Your task to perform on an android device: turn notification dots on Image 0: 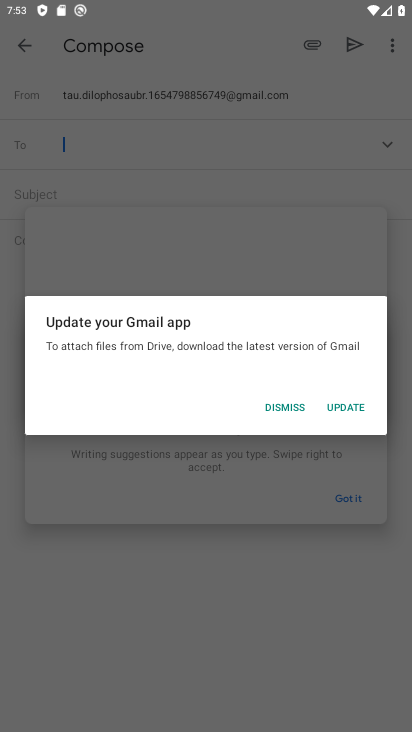
Step 0: press home button
Your task to perform on an android device: turn notification dots on Image 1: 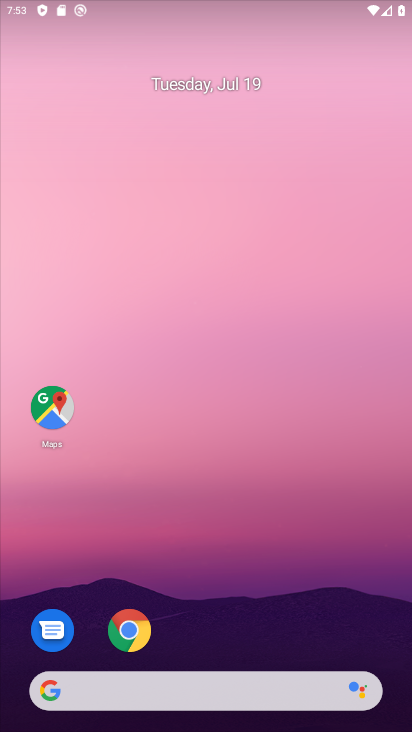
Step 1: drag from (219, 681) to (224, 154)
Your task to perform on an android device: turn notification dots on Image 2: 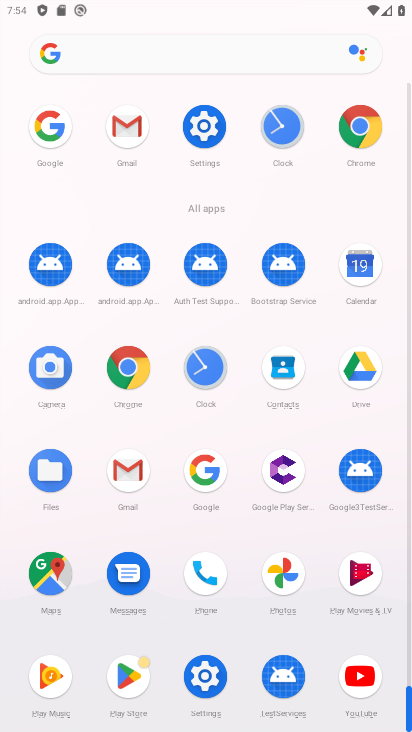
Step 2: click (209, 674)
Your task to perform on an android device: turn notification dots on Image 3: 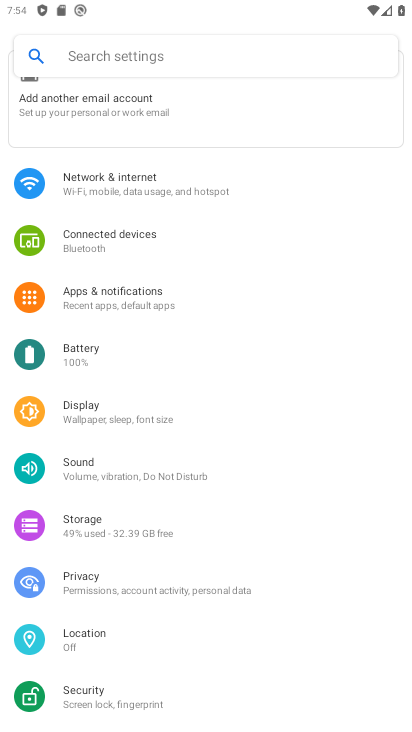
Step 3: click (160, 302)
Your task to perform on an android device: turn notification dots on Image 4: 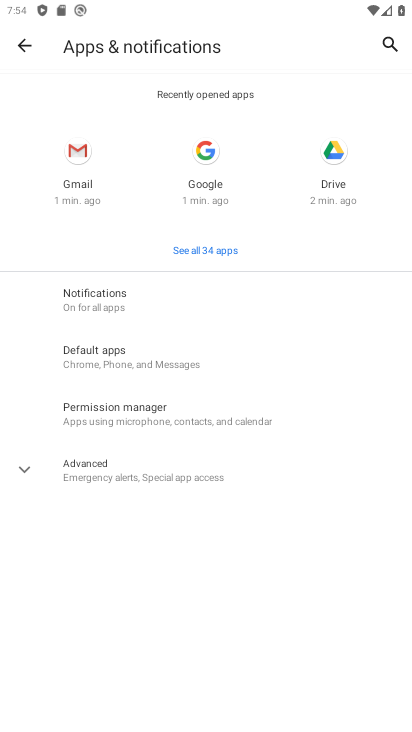
Step 4: click (155, 306)
Your task to perform on an android device: turn notification dots on Image 5: 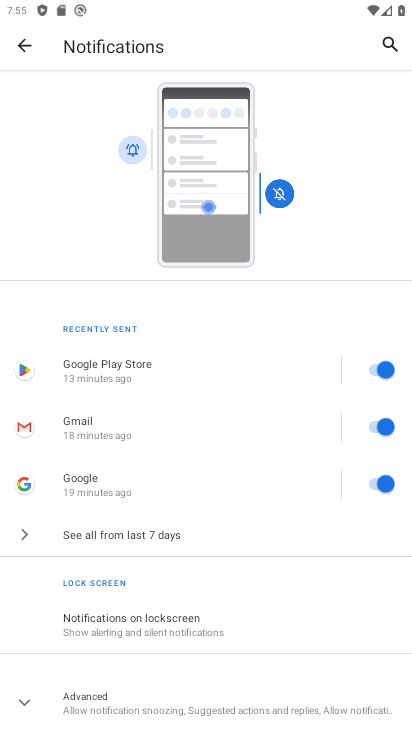
Step 5: drag from (190, 667) to (237, 238)
Your task to perform on an android device: turn notification dots on Image 6: 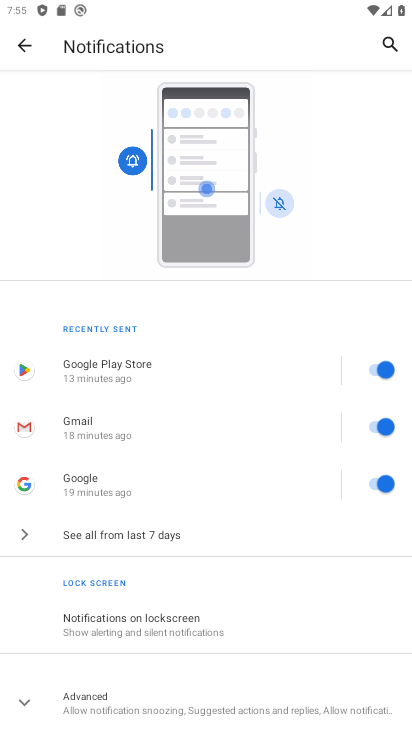
Step 6: drag from (201, 673) to (236, 435)
Your task to perform on an android device: turn notification dots on Image 7: 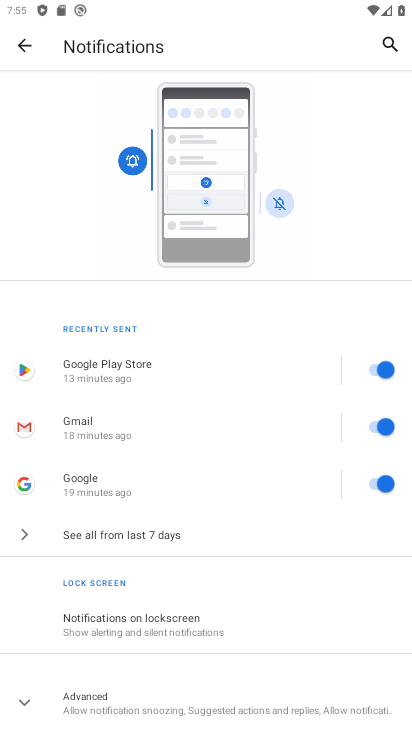
Step 7: click (186, 702)
Your task to perform on an android device: turn notification dots on Image 8: 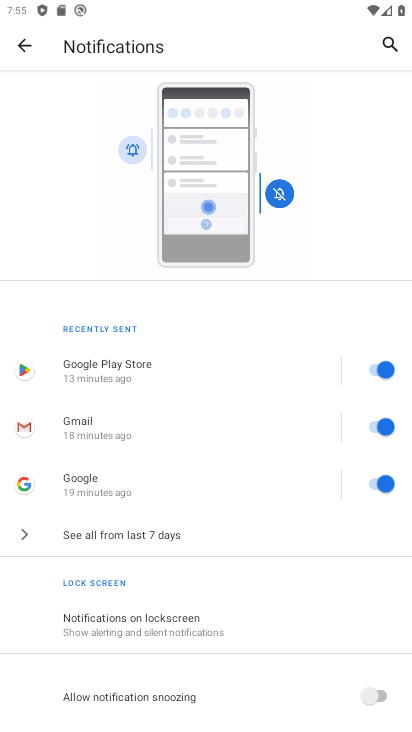
Step 8: task complete